Your task to perform on an android device: Go to Android settings Image 0: 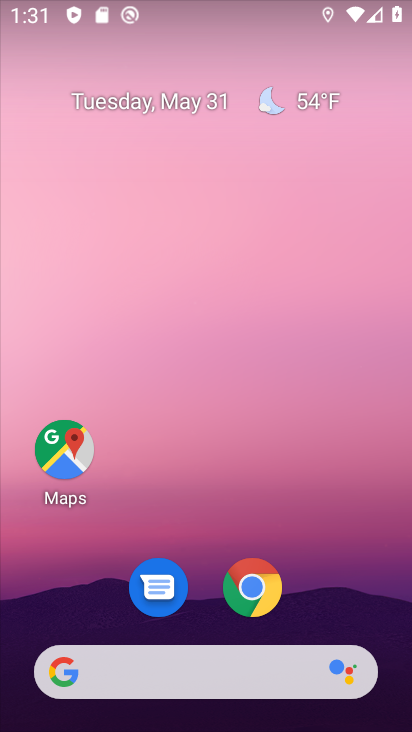
Step 0: click (284, 153)
Your task to perform on an android device: Go to Android settings Image 1: 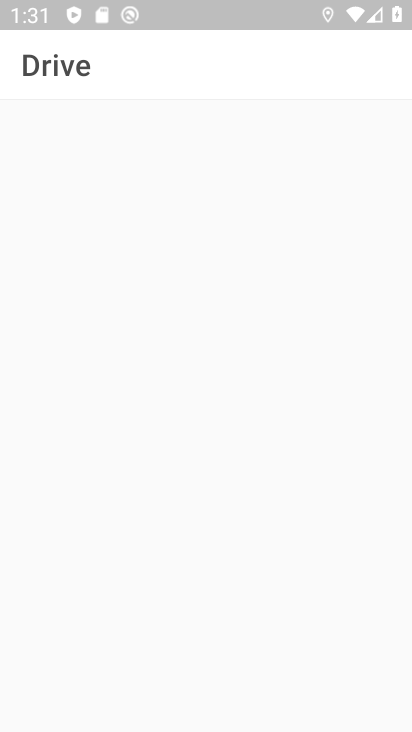
Step 1: drag from (228, 603) to (307, 265)
Your task to perform on an android device: Go to Android settings Image 2: 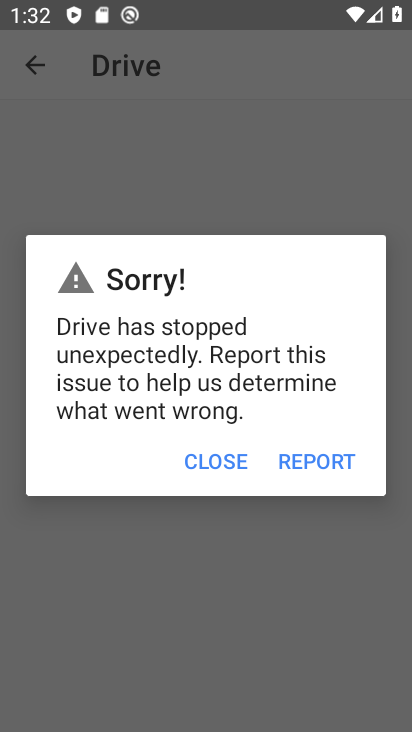
Step 2: press home button
Your task to perform on an android device: Go to Android settings Image 3: 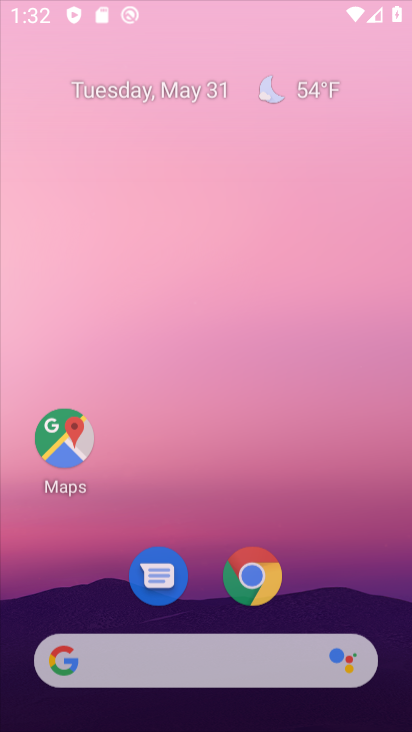
Step 3: drag from (229, 548) to (295, 94)
Your task to perform on an android device: Go to Android settings Image 4: 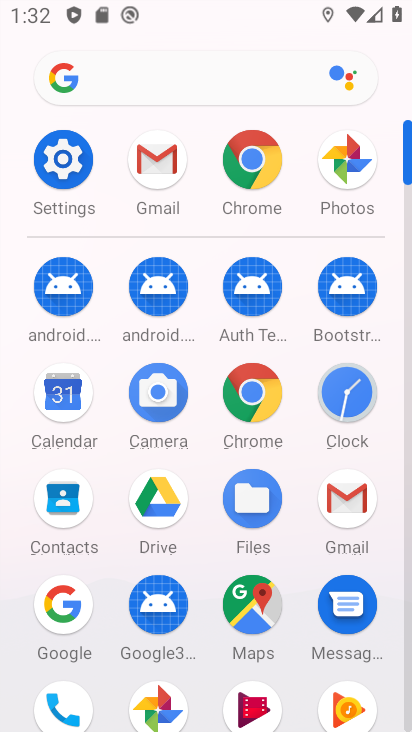
Step 4: click (63, 160)
Your task to perform on an android device: Go to Android settings Image 5: 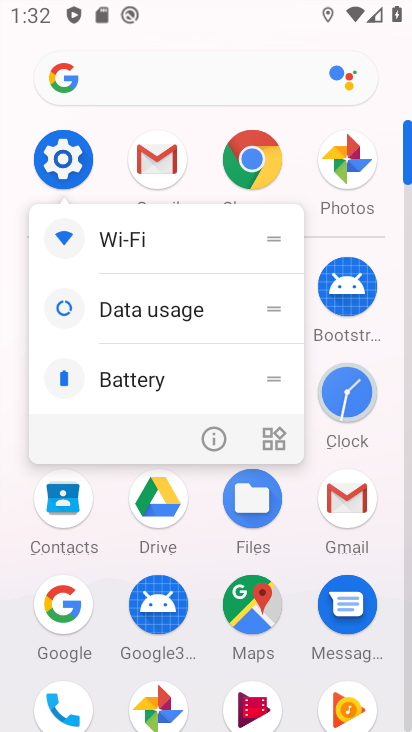
Step 5: click (206, 448)
Your task to perform on an android device: Go to Android settings Image 6: 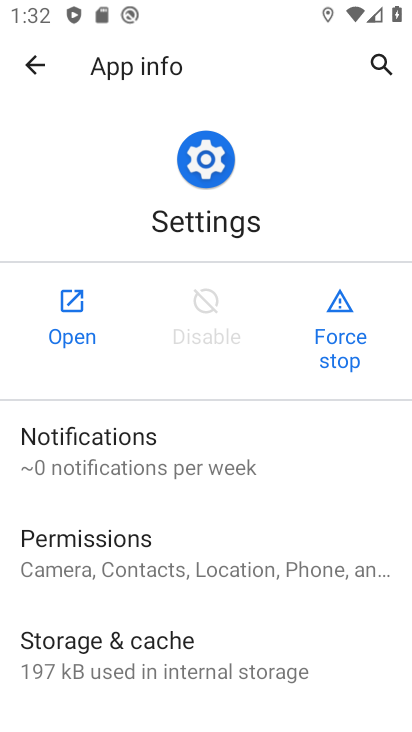
Step 6: click (68, 304)
Your task to perform on an android device: Go to Android settings Image 7: 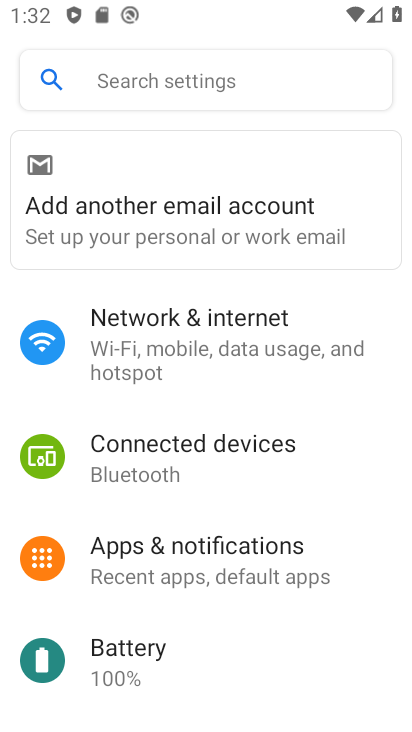
Step 7: drag from (174, 584) to (308, 36)
Your task to perform on an android device: Go to Android settings Image 8: 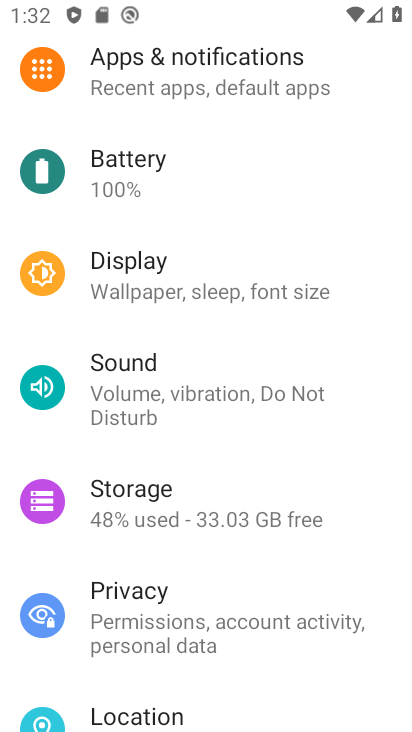
Step 8: drag from (233, 509) to (299, 65)
Your task to perform on an android device: Go to Android settings Image 9: 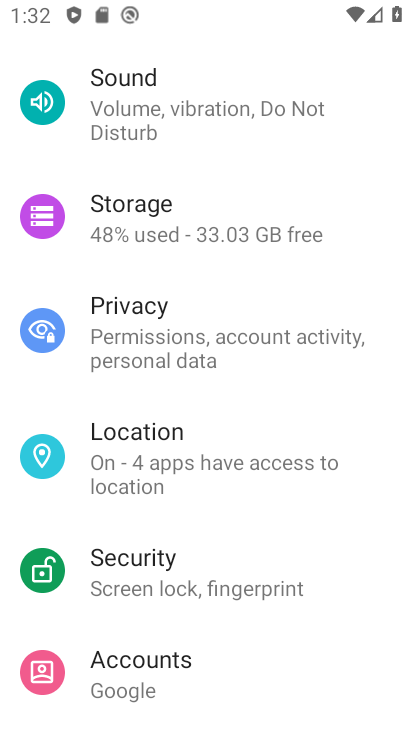
Step 9: drag from (174, 597) to (242, 116)
Your task to perform on an android device: Go to Android settings Image 10: 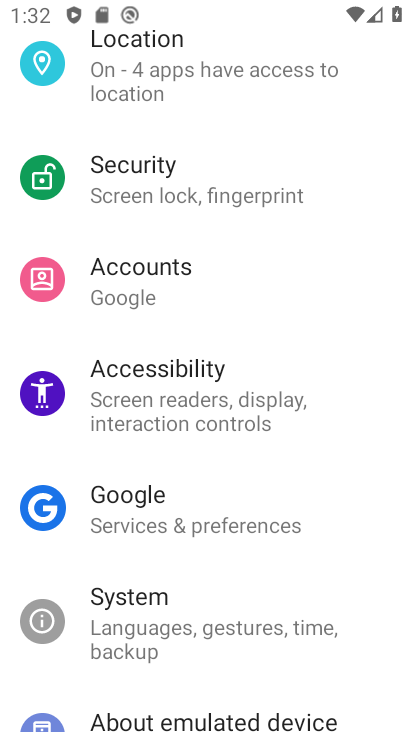
Step 10: drag from (195, 633) to (302, 1)
Your task to perform on an android device: Go to Android settings Image 11: 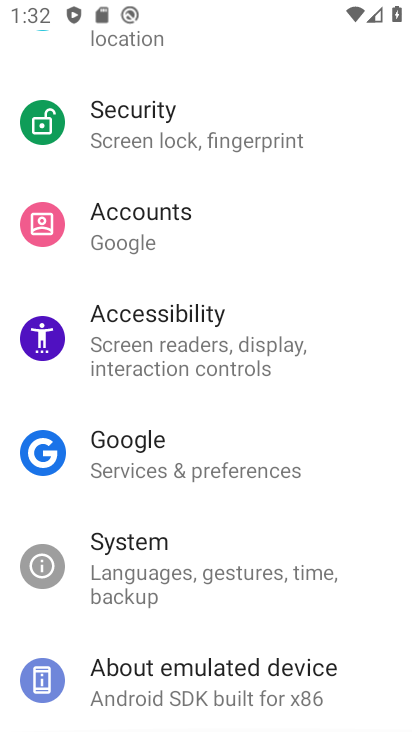
Step 11: click (176, 695)
Your task to perform on an android device: Go to Android settings Image 12: 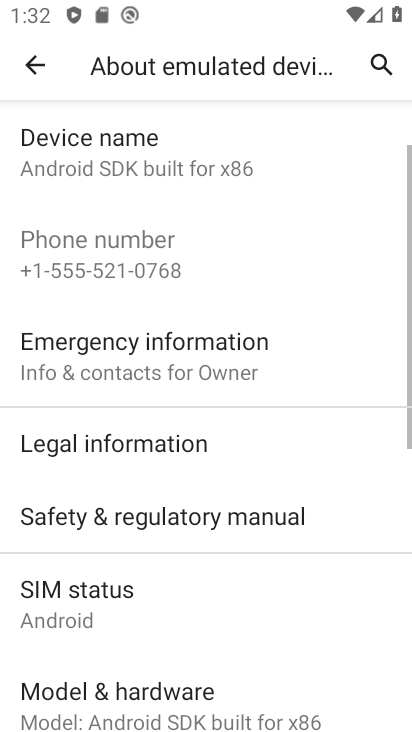
Step 12: drag from (169, 642) to (322, 134)
Your task to perform on an android device: Go to Android settings Image 13: 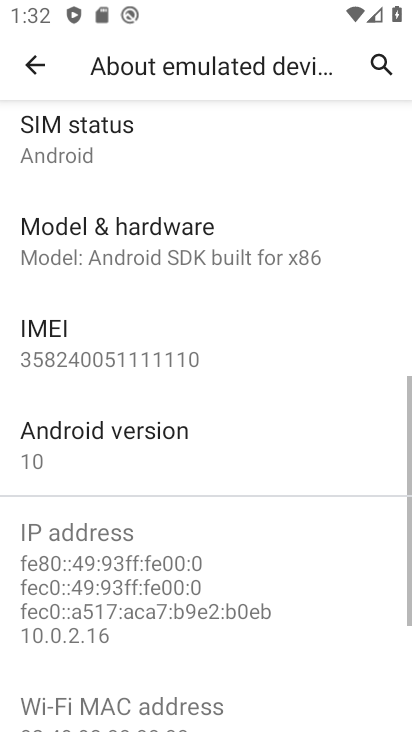
Step 13: drag from (121, 567) to (226, 181)
Your task to perform on an android device: Go to Android settings Image 14: 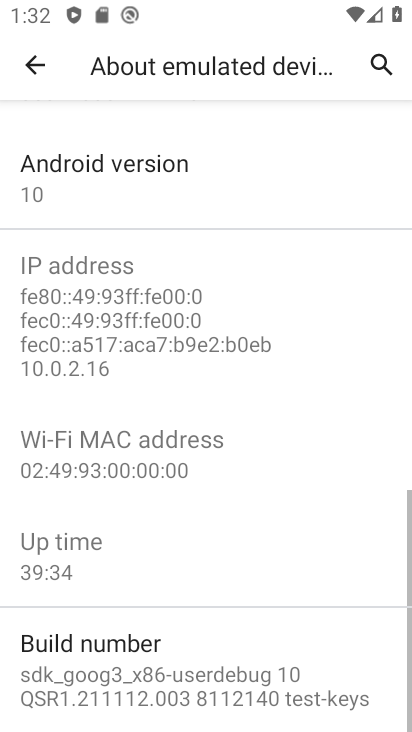
Step 14: drag from (192, 230) to (301, 644)
Your task to perform on an android device: Go to Android settings Image 15: 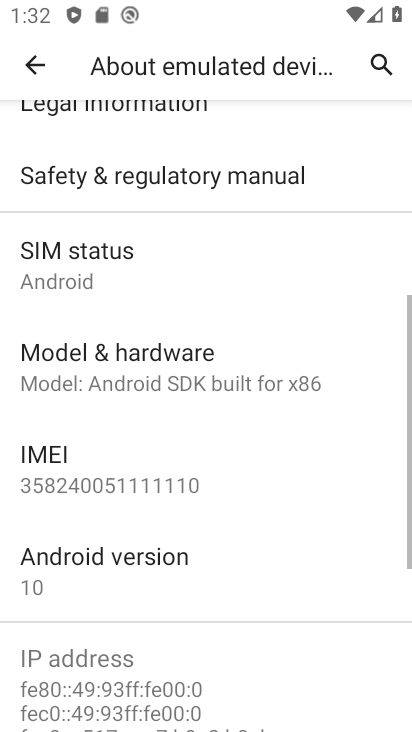
Step 15: click (153, 575)
Your task to perform on an android device: Go to Android settings Image 16: 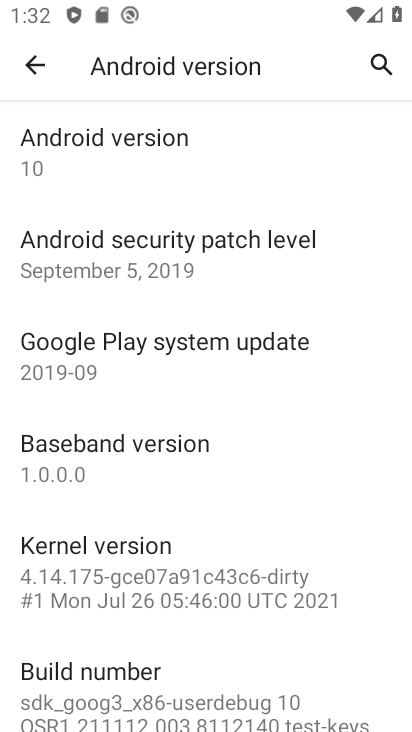
Step 16: click (141, 157)
Your task to perform on an android device: Go to Android settings Image 17: 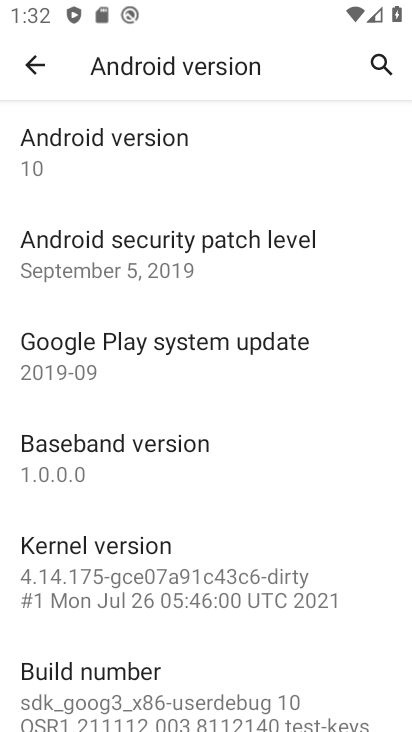
Step 17: task complete